Your task to perform on an android device: Open the map Image 0: 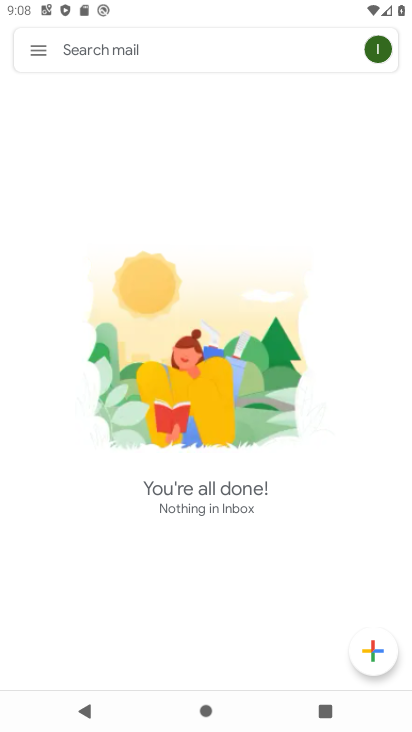
Step 0: press home button
Your task to perform on an android device: Open the map Image 1: 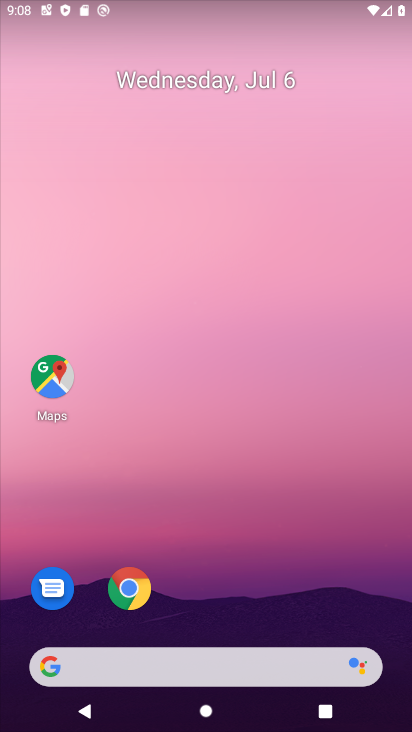
Step 1: click (54, 380)
Your task to perform on an android device: Open the map Image 2: 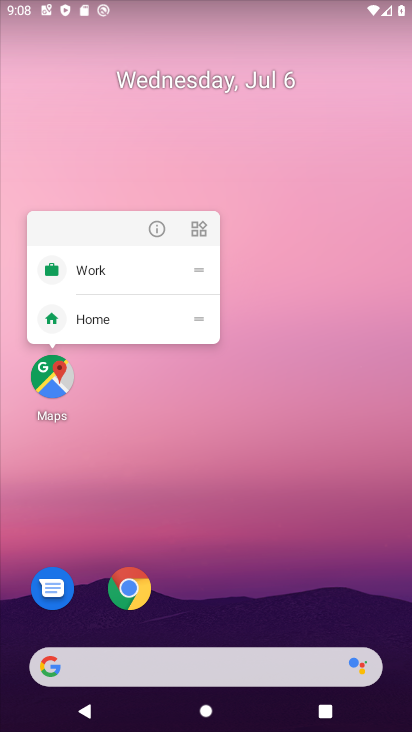
Step 2: click (49, 386)
Your task to perform on an android device: Open the map Image 3: 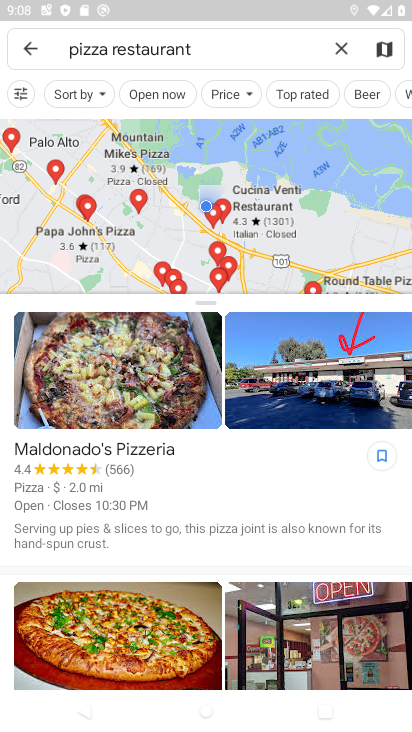
Step 3: task complete